Your task to perform on an android device: Open network settings Image 0: 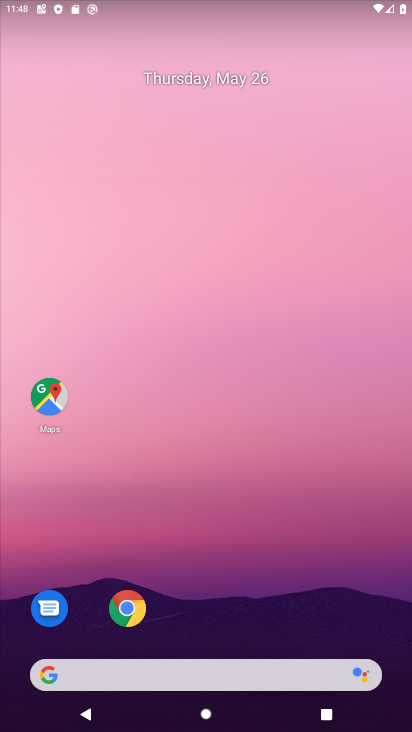
Step 0: drag from (223, 549) to (139, 35)
Your task to perform on an android device: Open network settings Image 1: 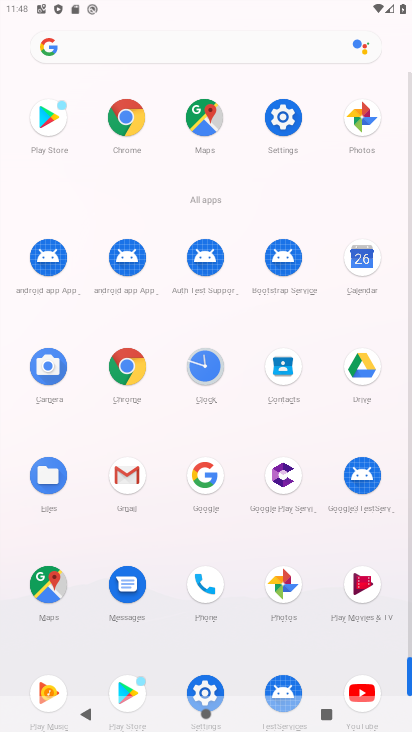
Step 1: drag from (12, 605) to (17, 268)
Your task to perform on an android device: Open network settings Image 2: 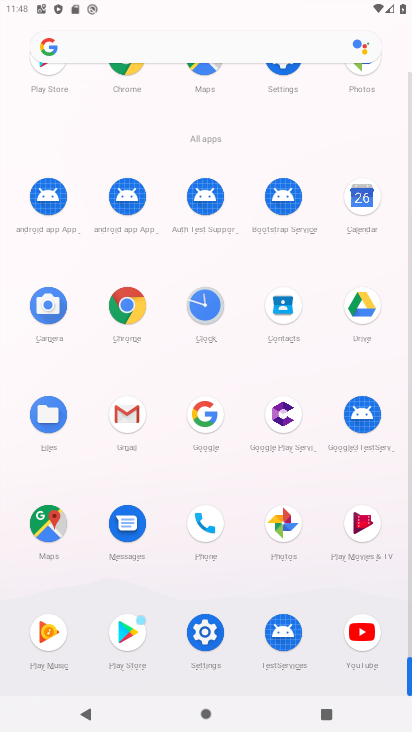
Step 2: click (204, 634)
Your task to perform on an android device: Open network settings Image 3: 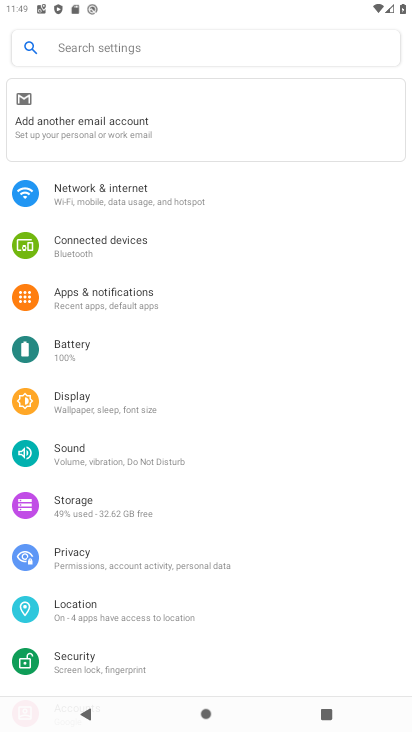
Step 3: click (149, 195)
Your task to perform on an android device: Open network settings Image 4: 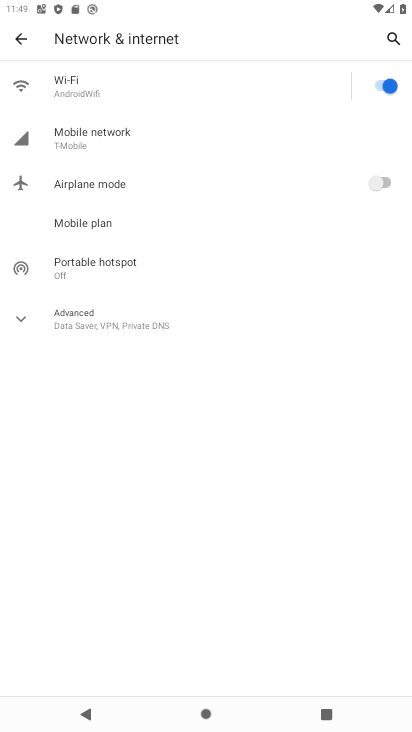
Step 4: click (22, 308)
Your task to perform on an android device: Open network settings Image 5: 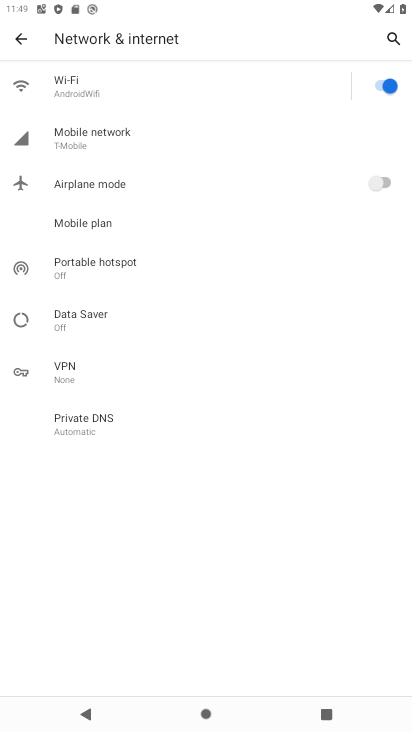
Step 5: task complete